Your task to perform on an android device: delete a single message in the gmail app Image 0: 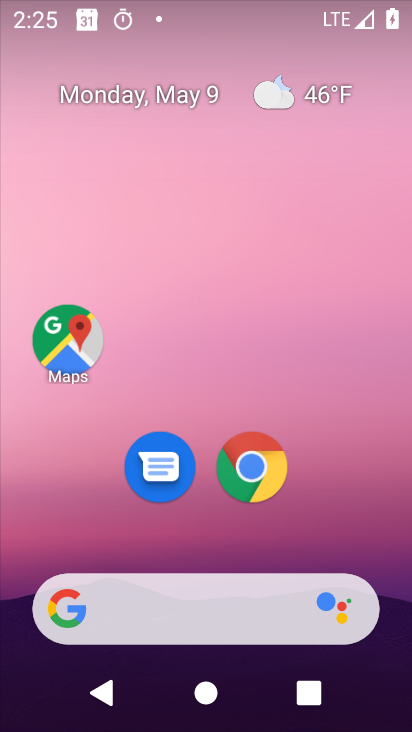
Step 0: drag from (343, 523) to (272, 40)
Your task to perform on an android device: delete a single message in the gmail app Image 1: 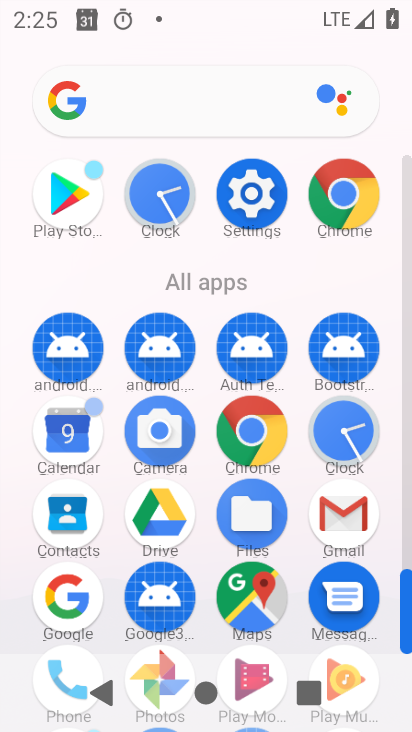
Step 1: click (349, 499)
Your task to perform on an android device: delete a single message in the gmail app Image 2: 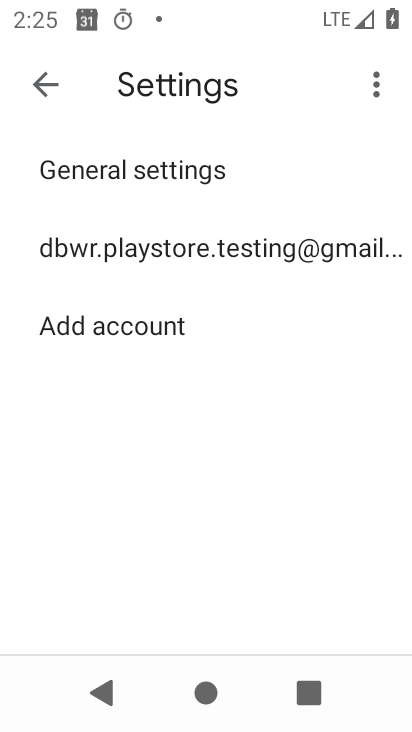
Step 2: click (36, 79)
Your task to perform on an android device: delete a single message in the gmail app Image 3: 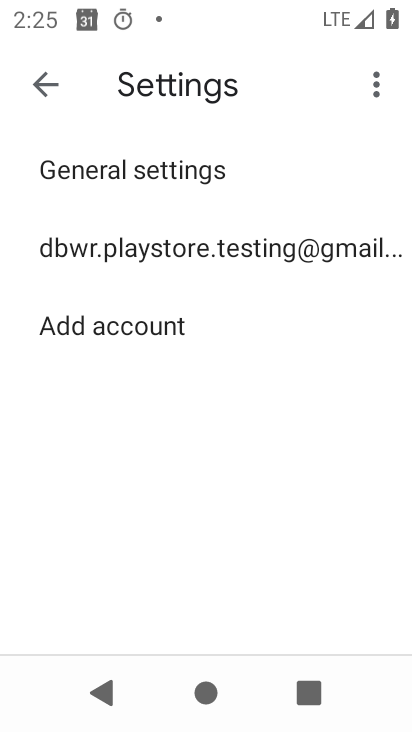
Step 3: click (33, 93)
Your task to perform on an android device: delete a single message in the gmail app Image 4: 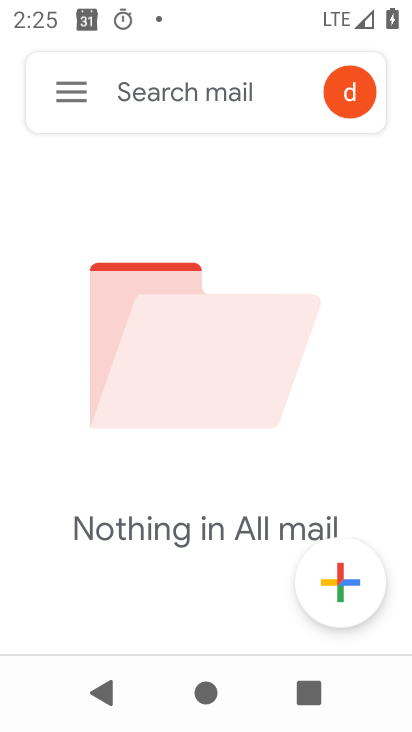
Step 4: task complete